Your task to perform on an android device: Open Google Maps and go to "Timeline" Image 0: 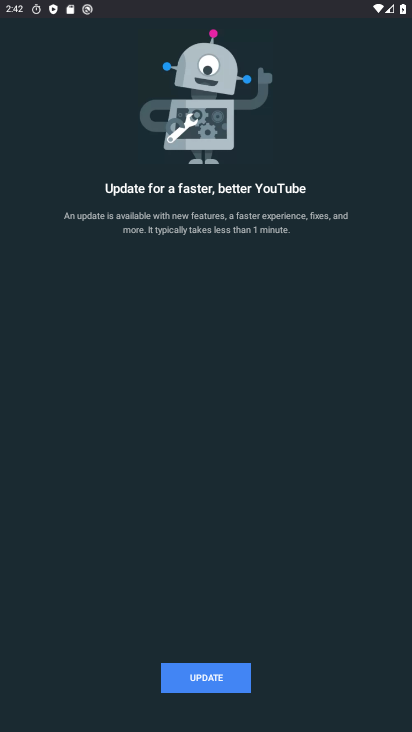
Step 0: drag from (11, 704) to (227, 113)
Your task to perform on an android device: Open Google Maps and go to "Timeline" Image 1: 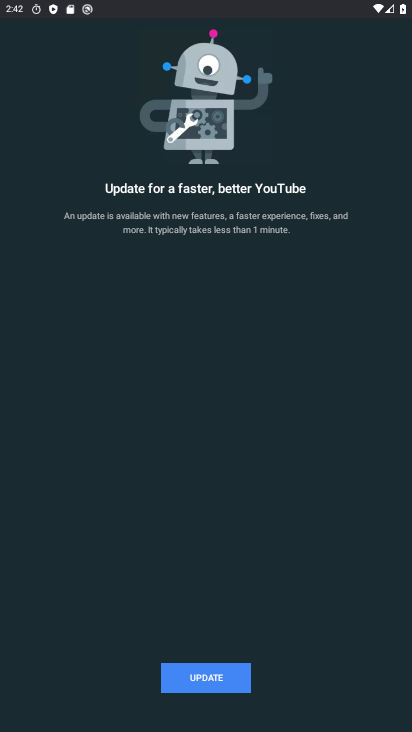
Step 1: press home button
Your task to perform on an android device: Open Google Maps and go to "Timeline" Image 2: 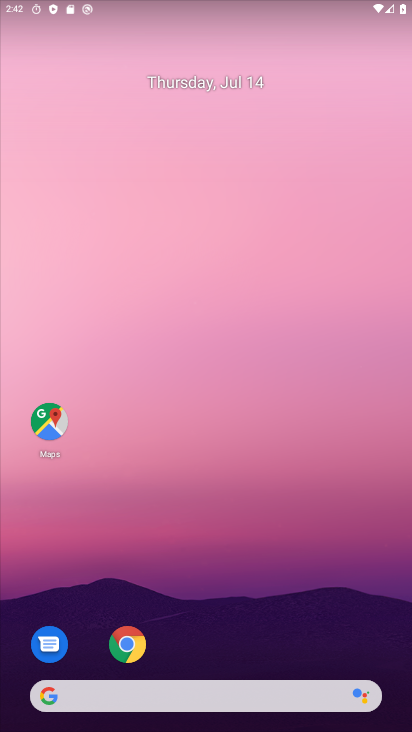
Step 2: click (54, 431)
Your task to perform on an android device: Open Google Maps and go to "Timeline" Image 3: 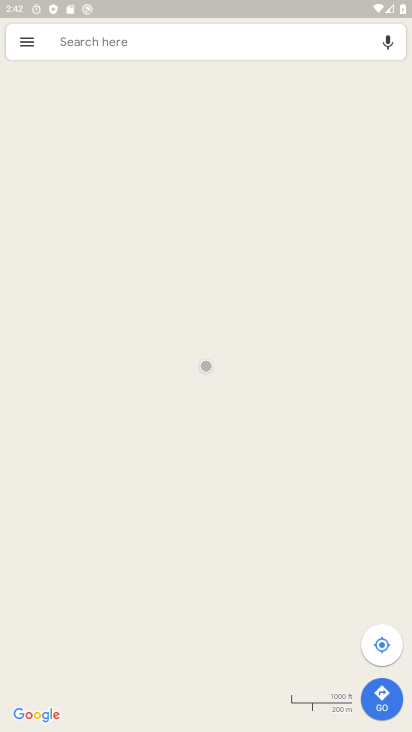
Step 3: click (23, 41)
Your task to perform on an android device: Open Google Maps and go to "Timeline" Image 4: 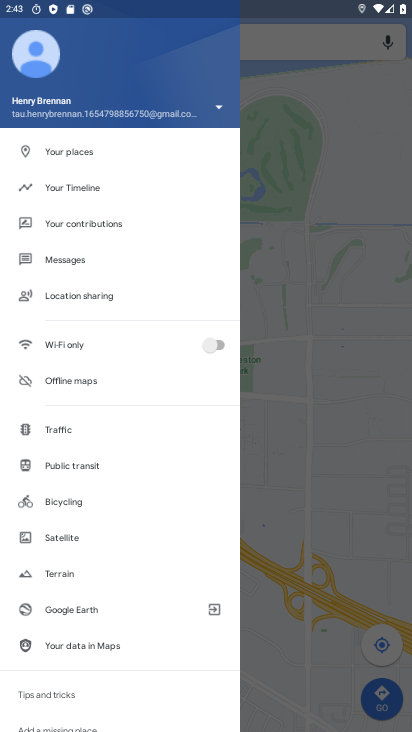
Step 4: click (83, 188)
Your task to perform on an android device: Open Google Maps and go to "Timeline" Image 5: 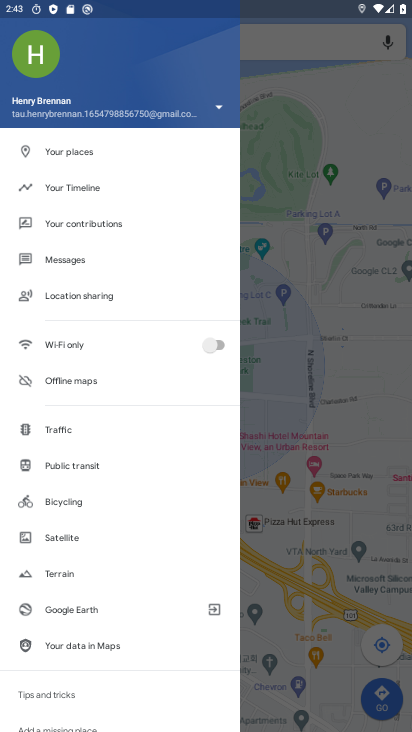
Step 5: click (72, 191)
Your task to perform on an android device: Open Google Maps and go to "Timeline" Image 6: 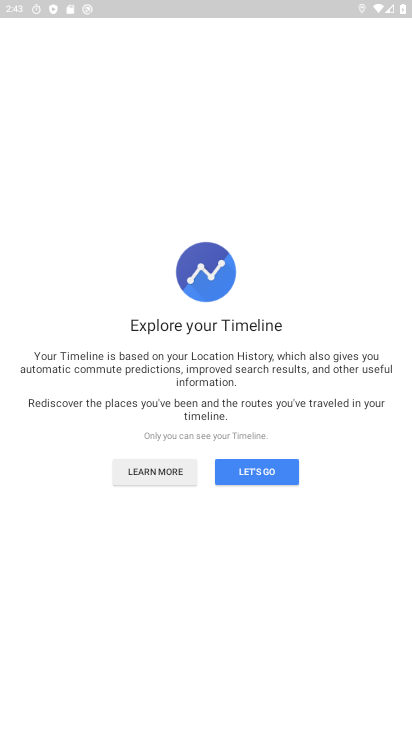
Step 6: task complete